Your task to perform on an android device: open the mobile data screen to see how much data has been used Image 0: 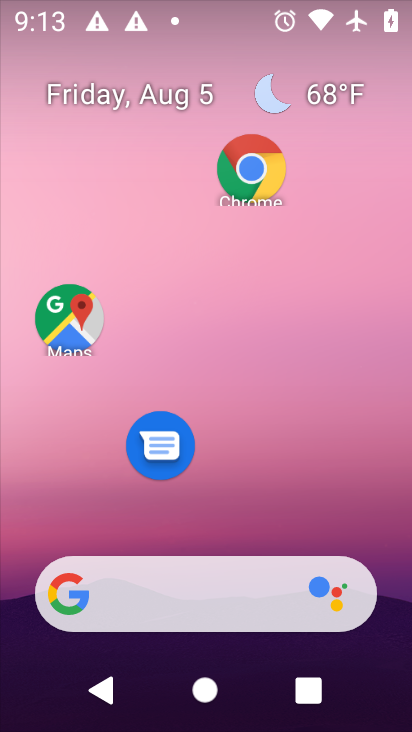
Step 0: drag from (203, 478) to (158, 212)
Your task to perform on an android device: open the mobile data screen to see how much data has been used Image 1: 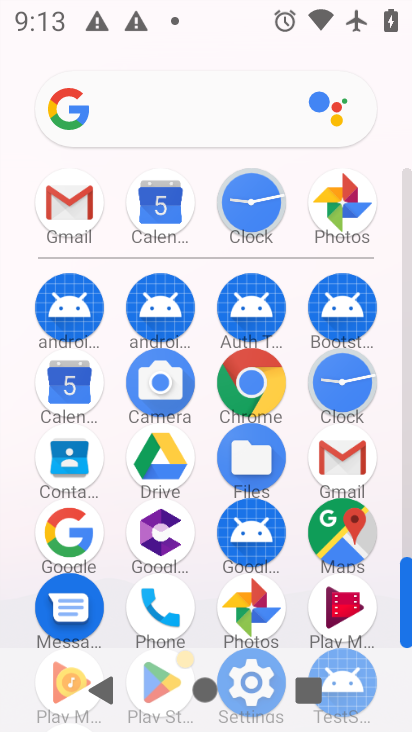
Step 1: drag from (194, 579) to (194, 321)
Your task to perform on an android device: open the mobile data screen to see how much data has been used Image 2: 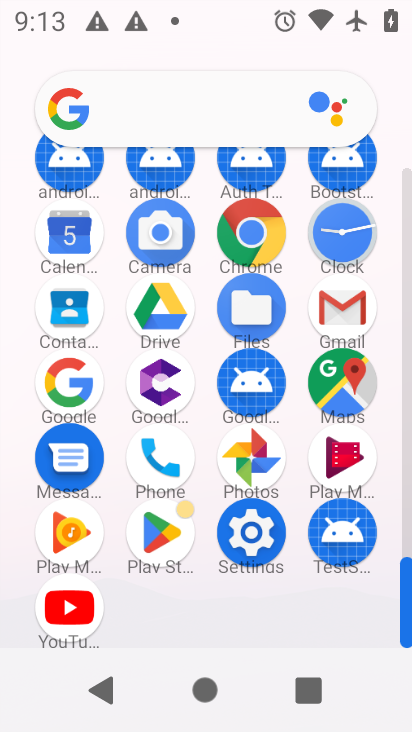
Step 2: click (253, 536)
Your task to perform on an android device: open the mobile data screen to see how much data has been used Image 3: 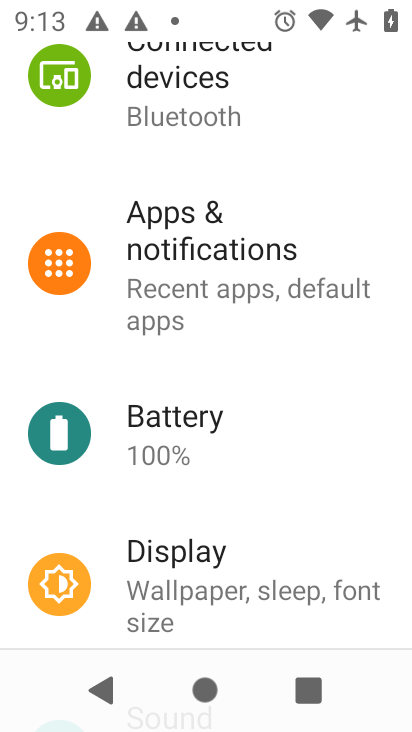
Step 3: drag from (234, 213) to (234, 582)
Your task to perform on an android device: open the mobile data screen to see how much data has been used Image 4: 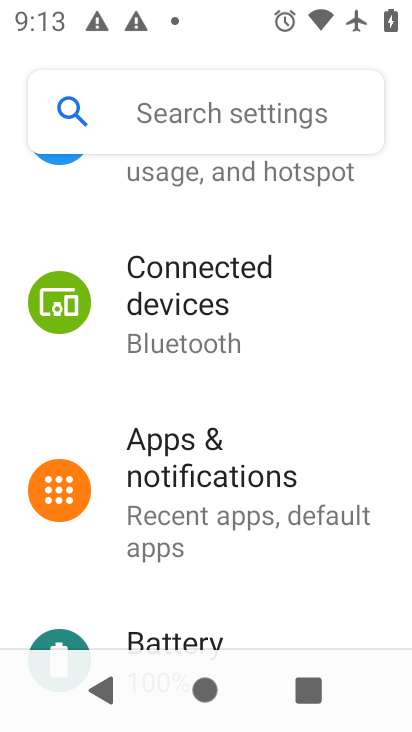
Step 4: drag from (233, 235) to (265, 552)
Your task to perform on an android device: open the mobile data screen to see how much data has been used Image 5: 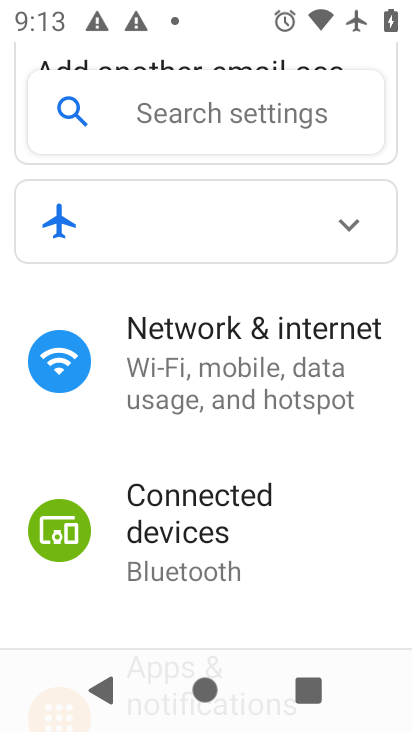
Step 5: click (207, 370)
Your task to perform on an android device: open the mobile data screen to see how much data has been used Image 6: 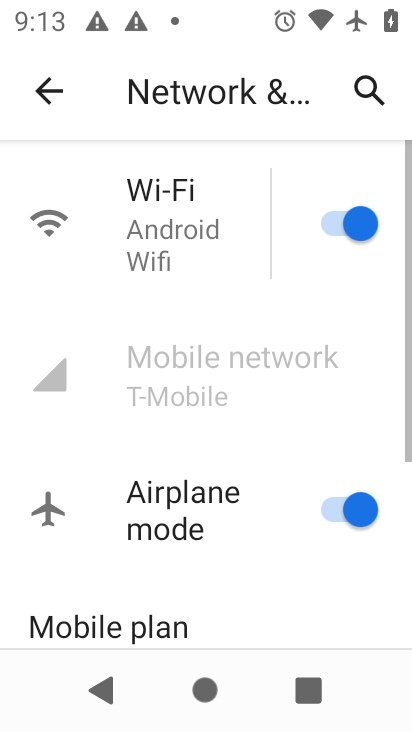
Step 6: click (207, 370)
Your task to perform on an android device: open the mobile data screen to see how much data has been used Image 7: 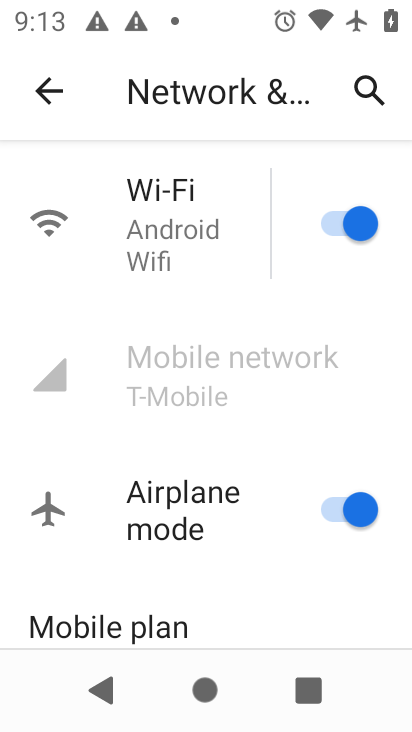
Step 7: task complete